Your task to perform on an android device: Go to network settings Image 0: 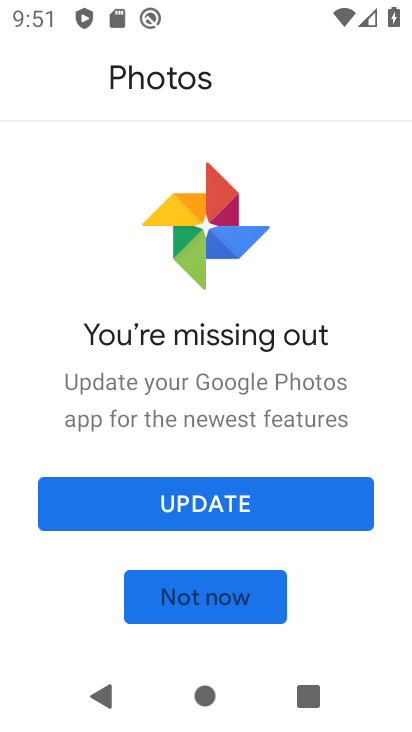
Step 0: press back button
Your task to perform on an android device: Go to network settings Image 1: 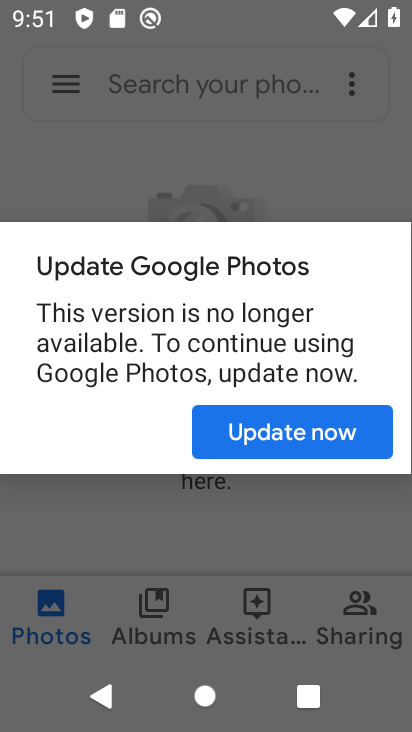
Step 1: press home button
Your task to perform on an android device: Go to network settings Image 2: 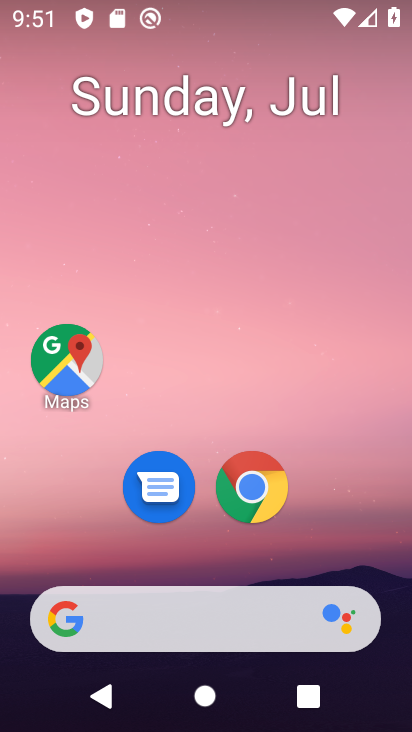
Step 2: drag from (193, 550) to (228, 34)
Your task to perform on an android device: Go to network settings Image 3: 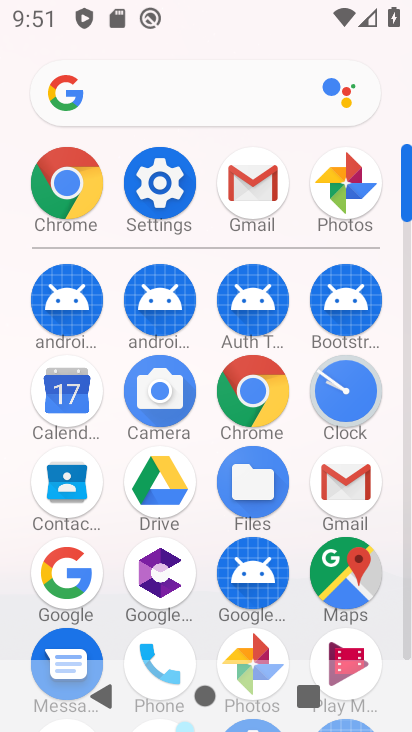
Step 3: click (142, 189)
Your task to perform on an android device: Go to network settings Image 4: 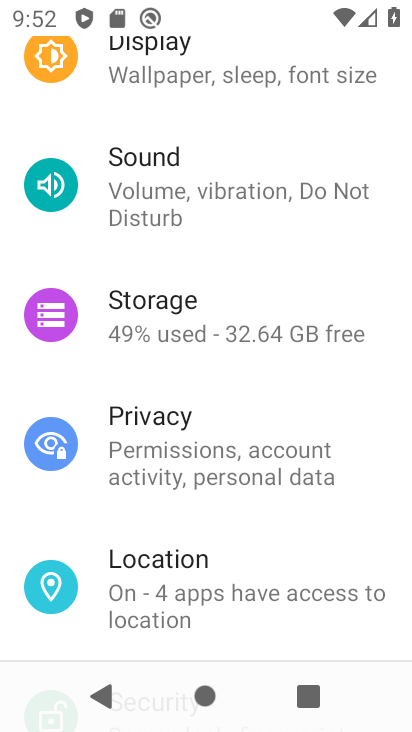
Step 4: drag from (241, 204) to (237, 727)
Your task to perform on an android device: Go to network settings Image 5: 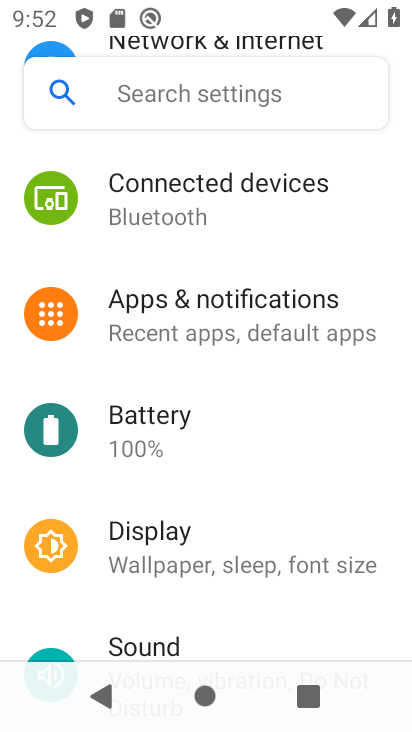
Step 5: drag from (211, 225) to (188, 667)
Your task to perform on an android device: Go to network settings Image 6: 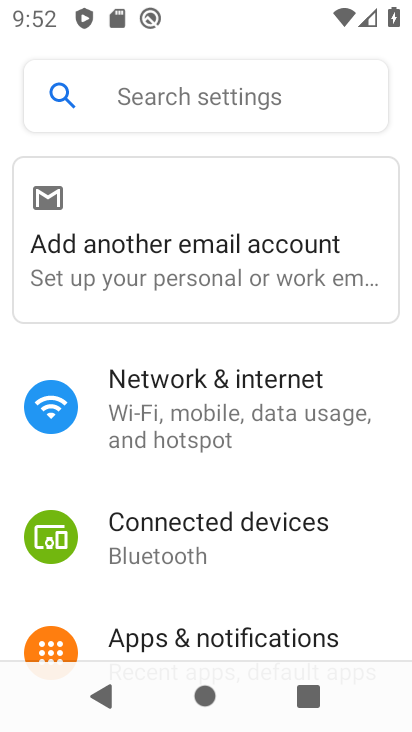
Step 6: click (190, 407)
Your task to perform on an android device: Go to network settings Image 7: 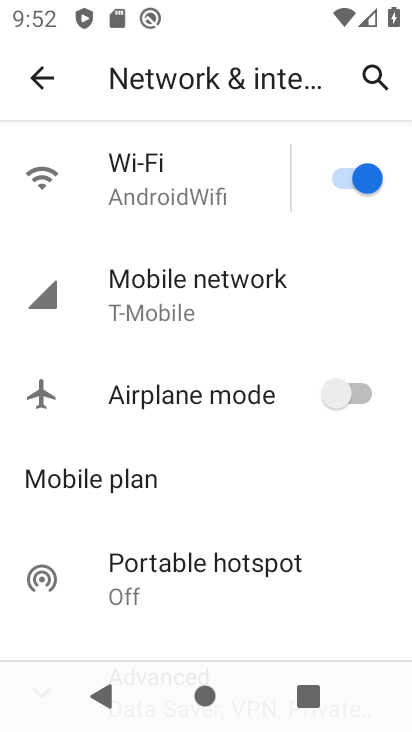
Step 7: task complete